Your task to perform on an android device: Open calendar and show me the third week of next month Image 0: 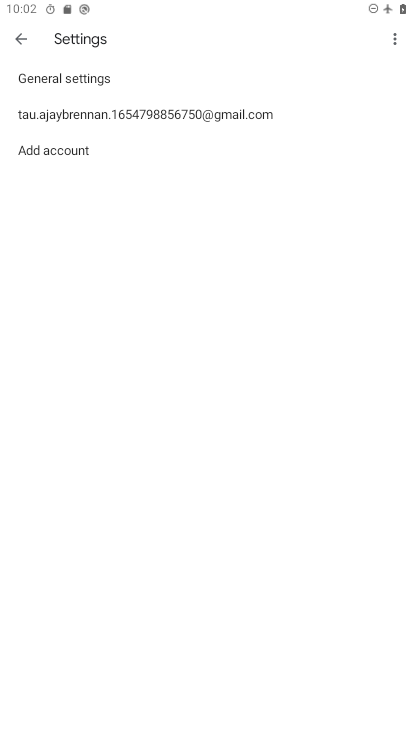
Step 0: press home button
Your task to perform on an android device: Open calendar and show me the third week of next month Image 1: 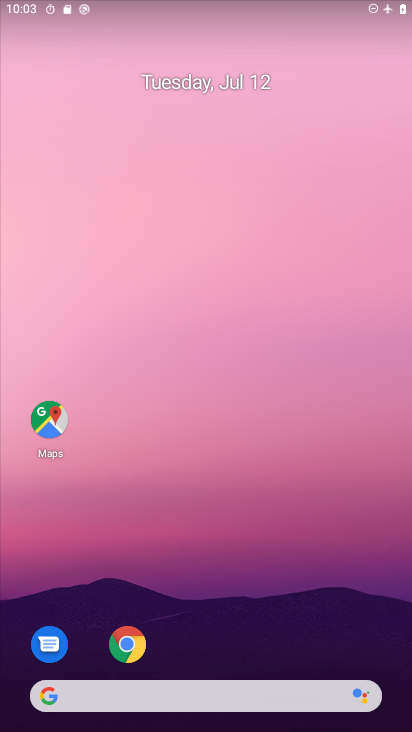
Step 1: drag from (176, 635) to (168, 156)
Your task to perform on an android device: Open calendar and show me the third week of next month Image 2: 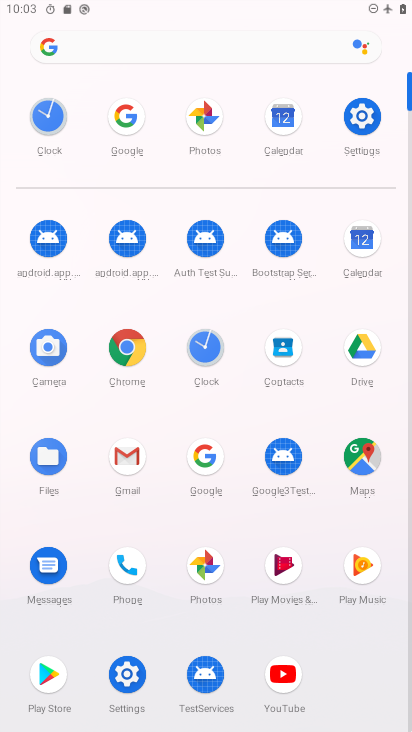
Step 2: click (343, 246)
Your task to perform on an android device: Open calendar and show me the third week of next month Image 3: 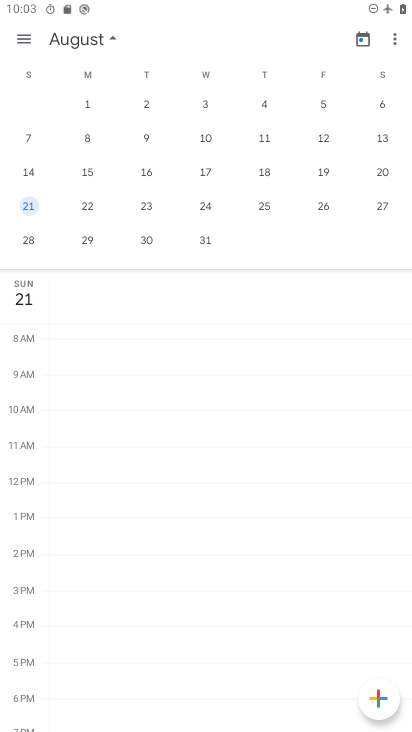
Step 3: click (28, 175)
Your task to perform on an android device: Open calendar and show me the third week of next month Image 4: 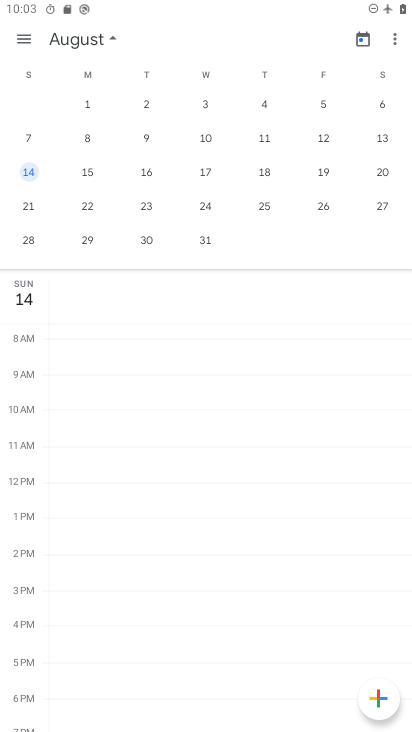
Step 4: task complete